Your task to perform on an android device: turn off sleep mode Image 0: 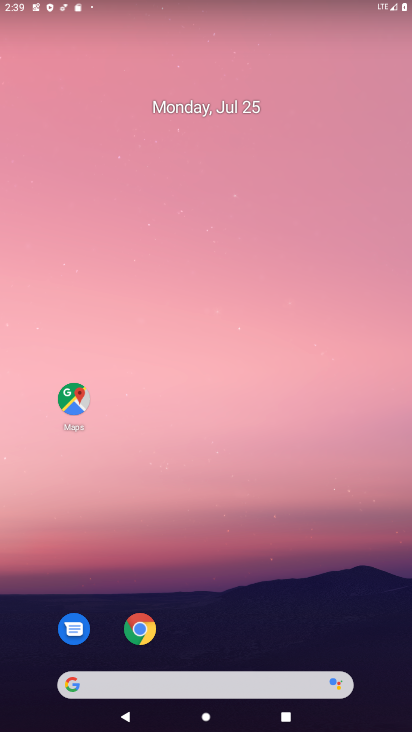
Step 0: click (408, 451)
Your task to perform on an android device: turn off sleep mode Image 1: 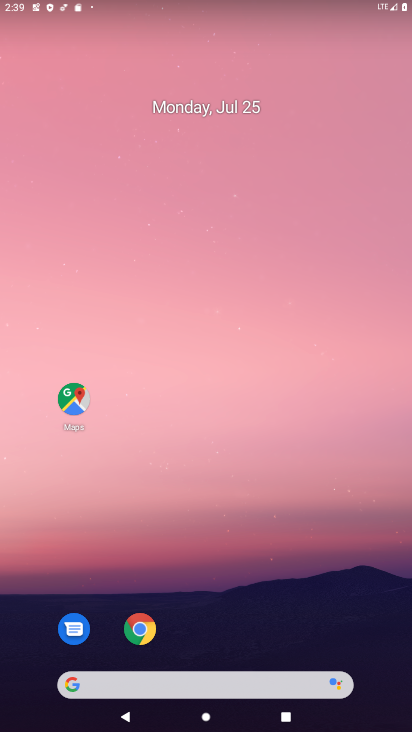
Step 1: drag from (200, 604) to (238, 97)
Your task to perform on an android device: turn off sleep mode Image 2: 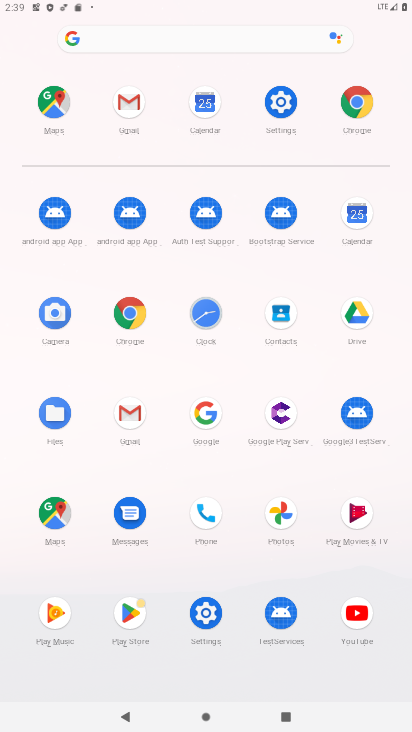
Step 2: click (194, 609)
Your task to perform on an android device: turn off sleep mode Image 3: 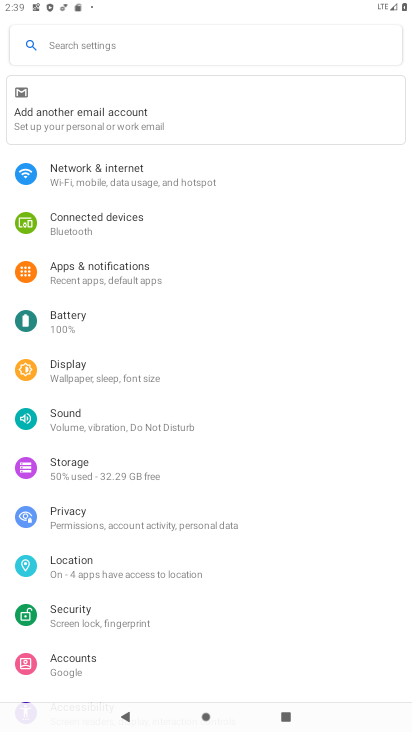
Step 3: click (125, 275)
Your task to perform on an android device: turn off sleep mode Image 4: 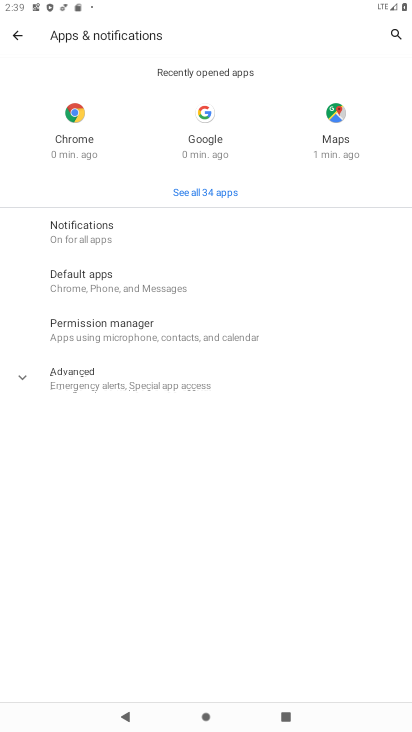
Step 4: click (131, 225)
Your task to perform on an android device: turn off sleep mode Image 5: 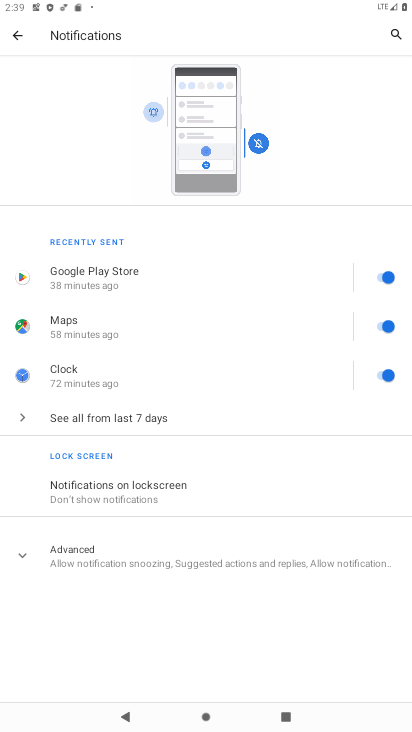
Step 5: click (22, 34)
Your task to perform on an android device: turn off sleep mode Image 6: 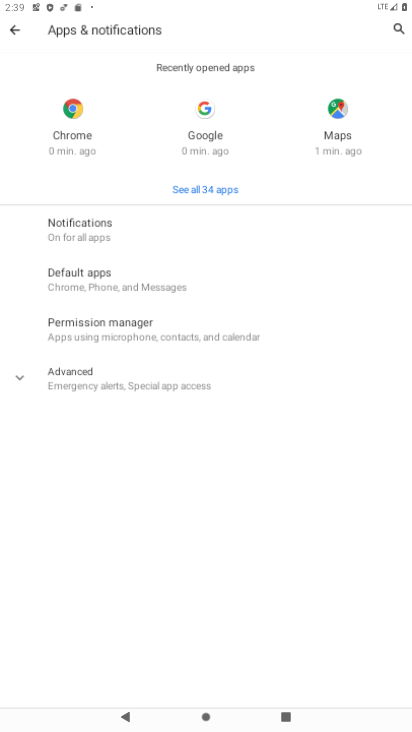
Step 6: click (21, 33)
Your task to perform on an android device: turn off sleep mode Image 7: 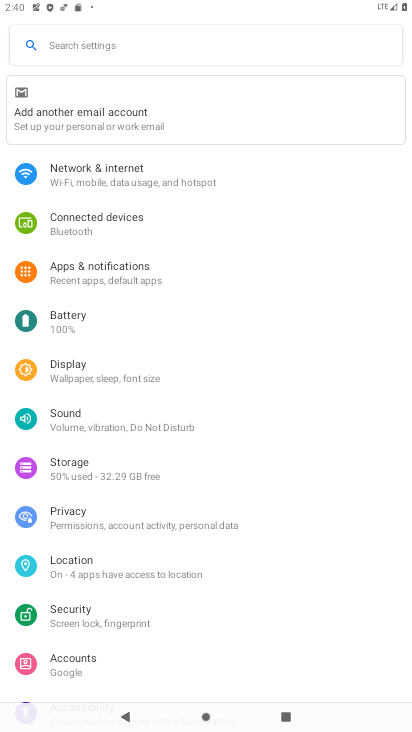
Step 7: click (88, 359)
Your task to perform on an android device: turn off sleep mode Image 8: 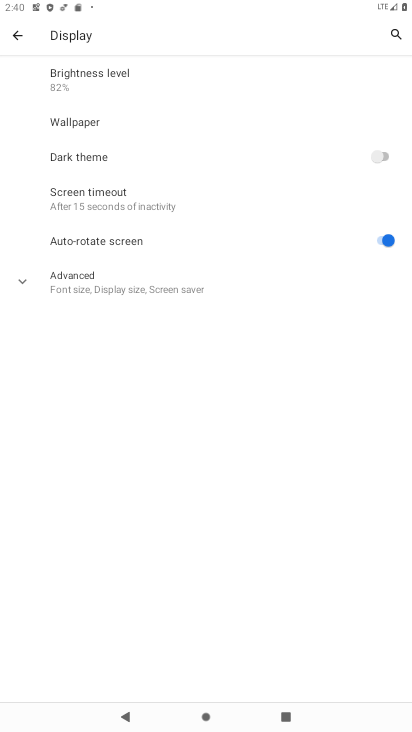
Step 8: drag from (179, 470) to (223, 145)
Your task to perform on an android device: turn off sleep mode Image 9: 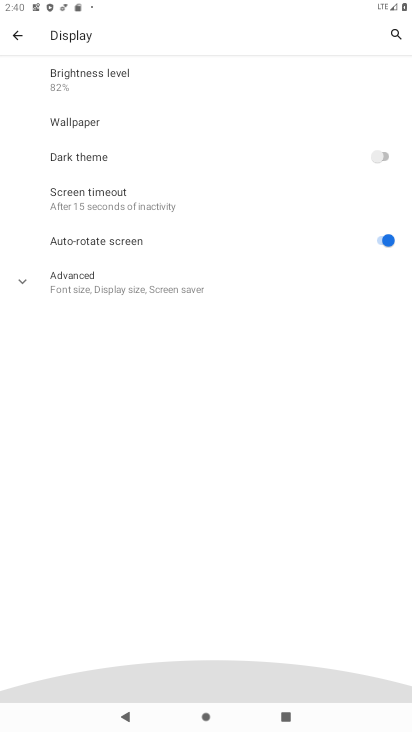
Step 9: drag from (211, 112) to (307, 528)
Your task to perform on an android device: turn off sleep mode Image 10: 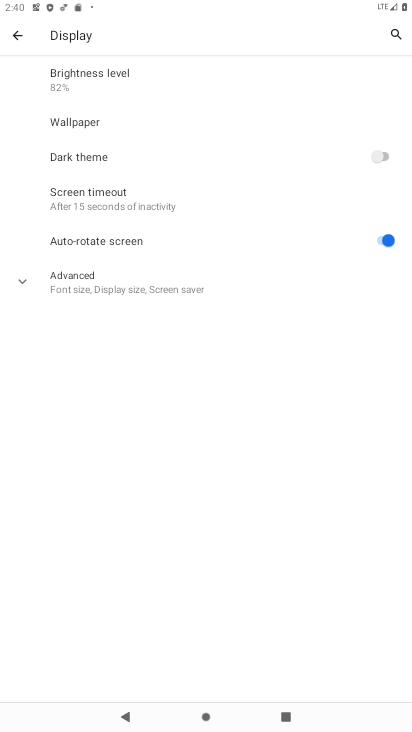
Step 10: click (155, 195)
Your task to perform on an android device: turn off sleep mode Image 11: 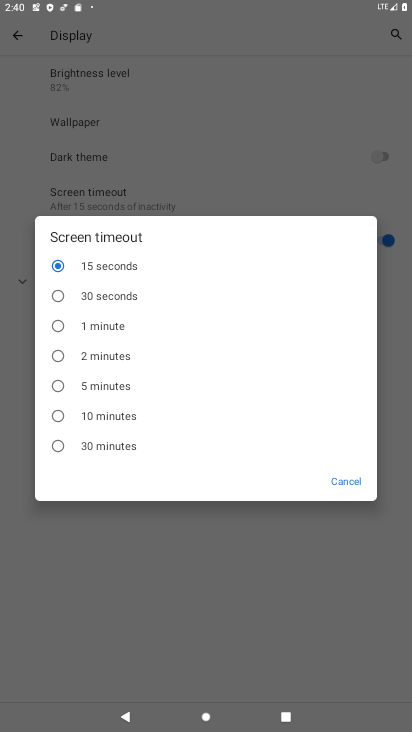
Step 11: task complete